Your task to perform on an android device: turn off notifications settings in the gmail app Image 0: 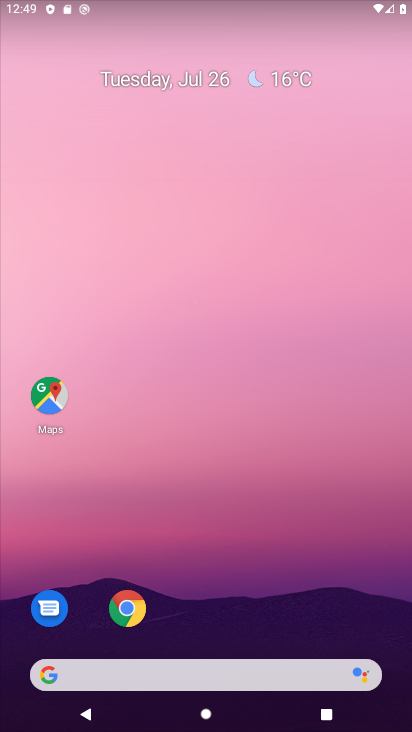
Step 0: drag from (272, 629) to (269, 254)
Your task to perform on an android device: turn off notifications settings in the gmail app Image 1: 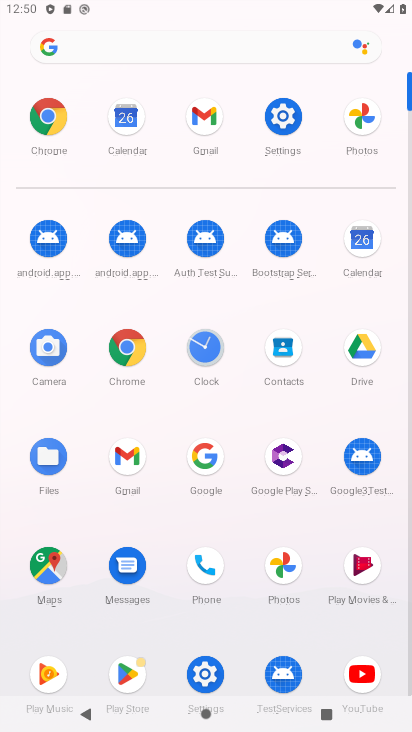
Step 1: click (207, 147)
Your task to perform on an android device: turn off notifications settings in the gmail app Image 2: 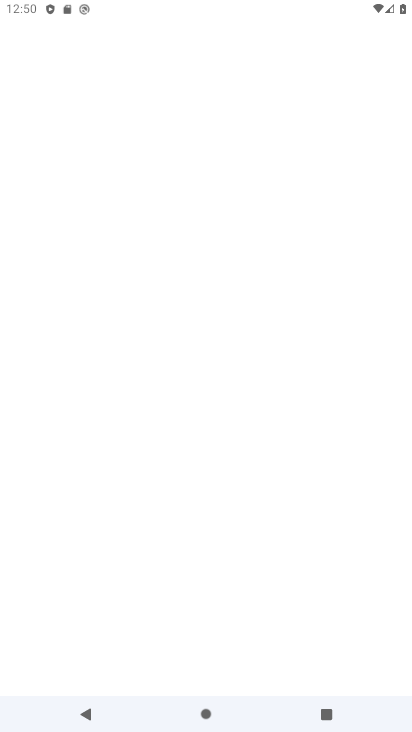
Step 2: task complete